Your task to perform on an android device: Open calendar and show me the second week of next month Image 0: 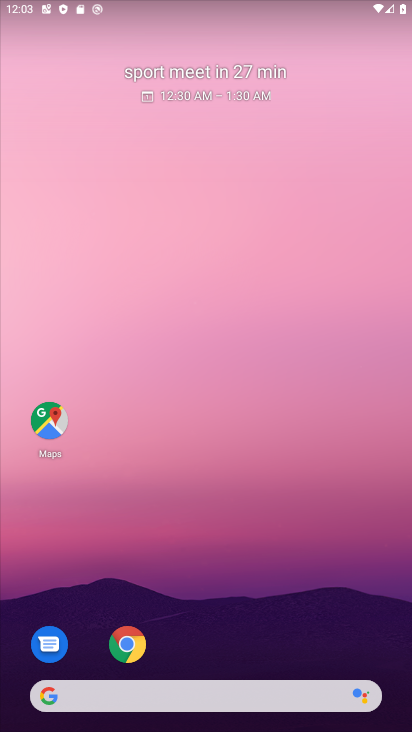
Step 0: drag from (217, 631) to (254, 113)
Your task to perform on an android device: Open calendar and show me the second week of next month Image 1: 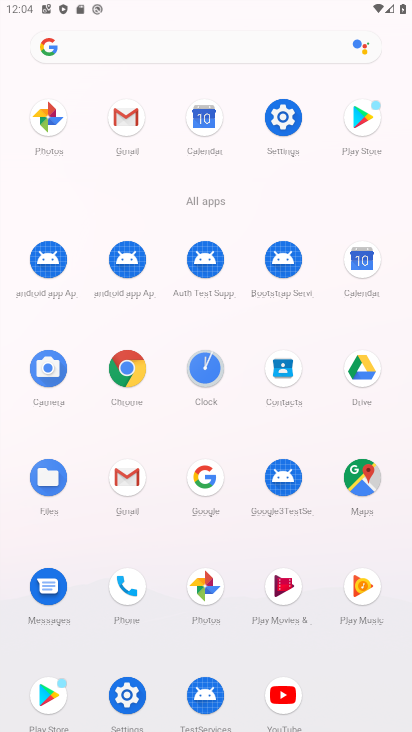
Step 1: click (367, 267)
Your task to perform on an android device: Open calendar and show me the second week of next month Image 2: 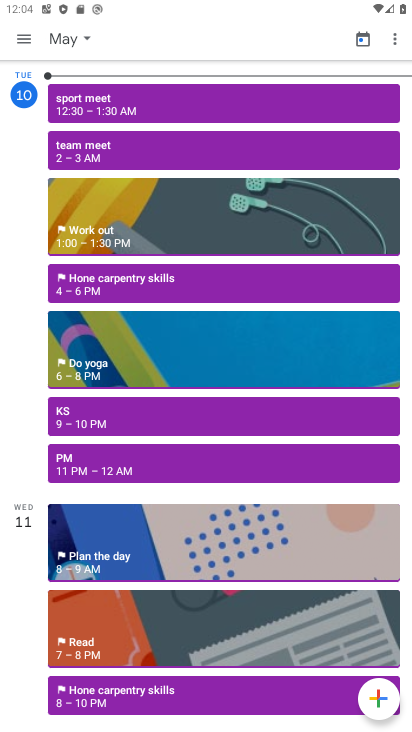
Step 2: click (83, 41)
Your task to perform on an android device: Open calendar and show me the second week of next month Image 3: 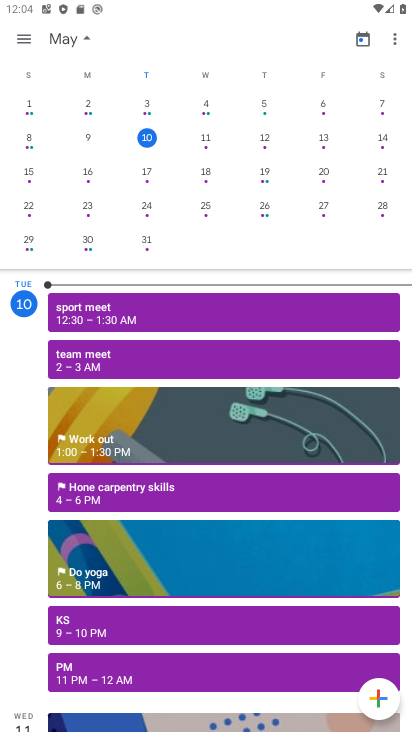
Step 3: drag from (393, 162) to (26, 156)
Your task to perform on an android device: Open calendar and show me the second week of next month Image 4: 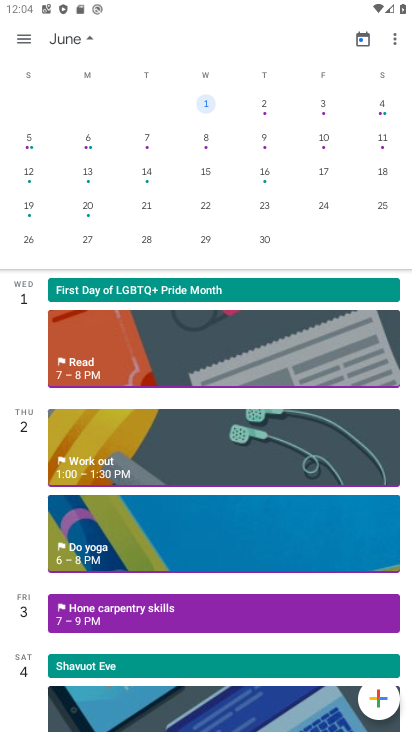
Step 4: click (83, 144)
Your task to perform on an android device: Open calendar and show me the second week of next month Image 5: 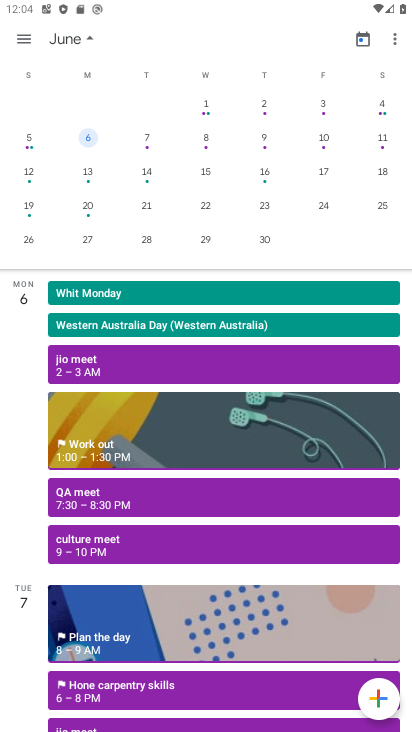
Step 5: task complete